Your task to perform on an android device: What's on my calendar tomorrow? Image 0: 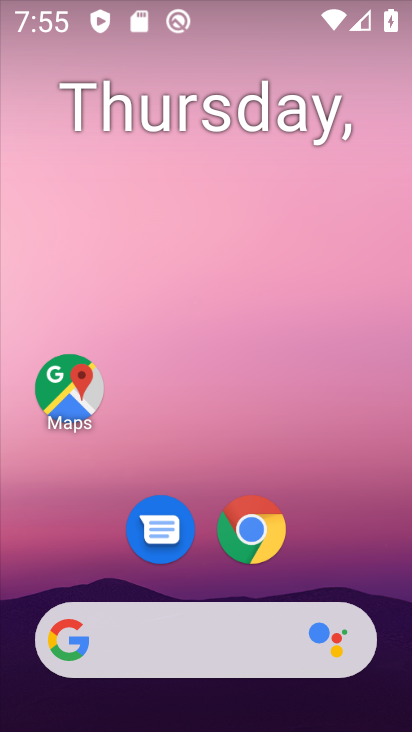
Step 0: drag from (242, 676) to (253, 191)
Your task to perform on an android device: What's on my calendar tomorrow? Image 1: 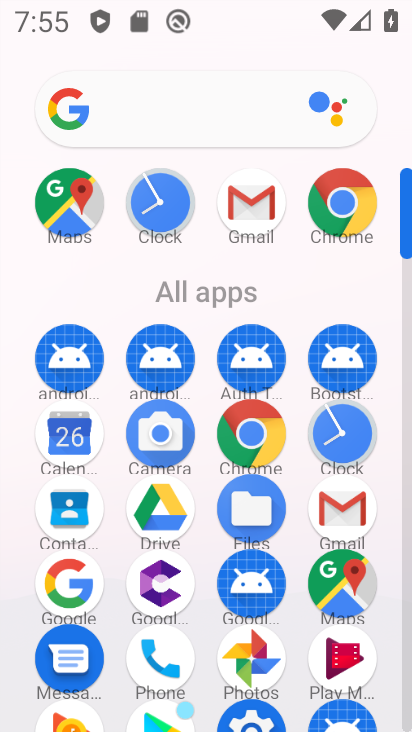
Step 1: click (54, 433)
Your task to perform on an android device: What's on my calendar tomorrow? Image 2: 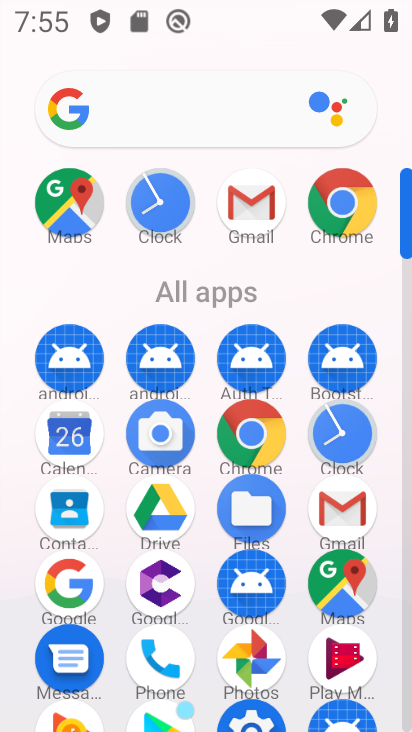
Step 2: click (55, 432)
Your task to perform on an android device: What's on my calendar tomorrow? Image 3: 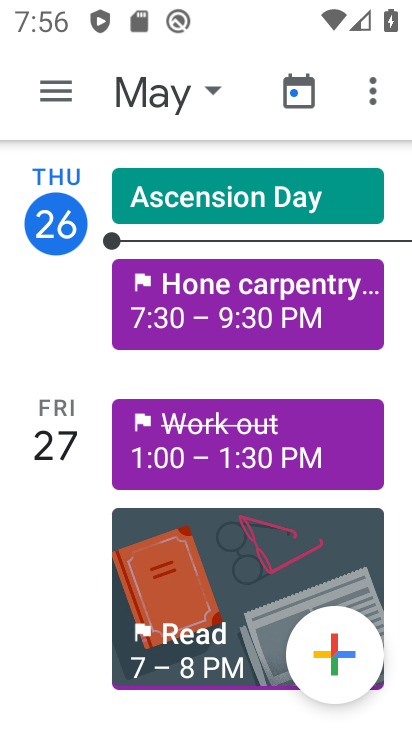
Step 3: drag from (215, 335) to (242, 5)
Your task to perform on an android device: What's on my calendar tomorrow? Image 4: 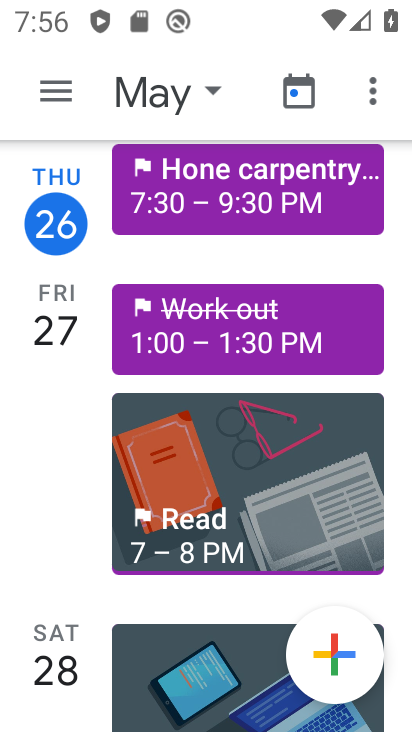
Step 4: click (257, 15)
Your task to perform on an android device: What's on my calendar tomorrow? Image 5: 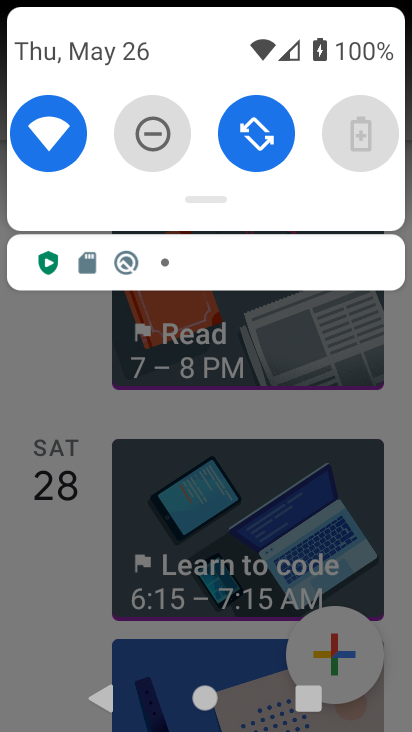
Step 5: click (202, 235)
Your task to perform on an android device: What's on my calendar tomorrow? Image 6: 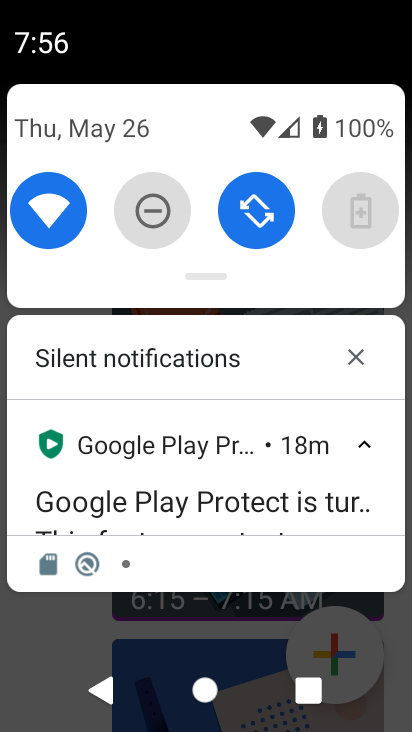
Step 6: click (188, 615)
Your task to perform on an android device: What's on my calendar tomorrow? Image 7: 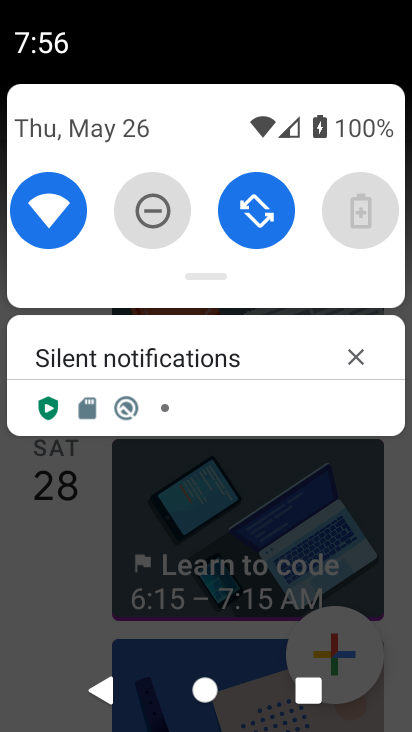
Step 7: click (194, 609)
Your task to perform on an android device: What's on my calendar tomorrow? Image 8: 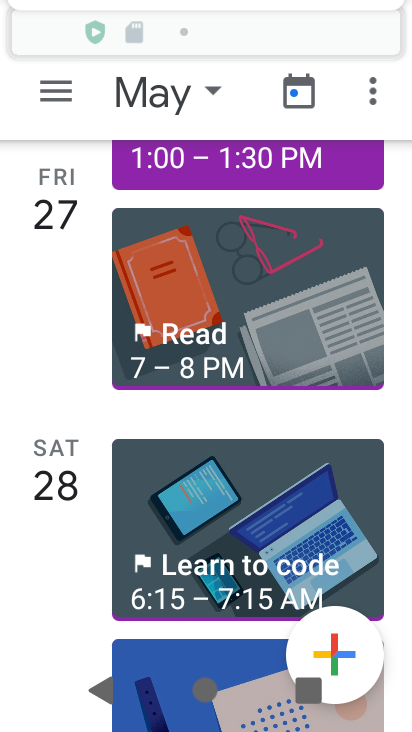
Step 8: click (196, 608)
Your task to perform on an android device: What's on my calendar tomorrow? Image 9: 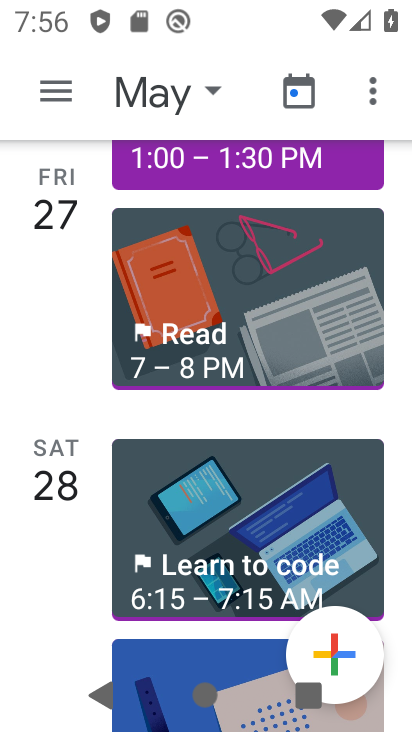
Step 9: click (204, 565)
Your task to perform on an android device: What's on my calendar tomorrow? Image 10: 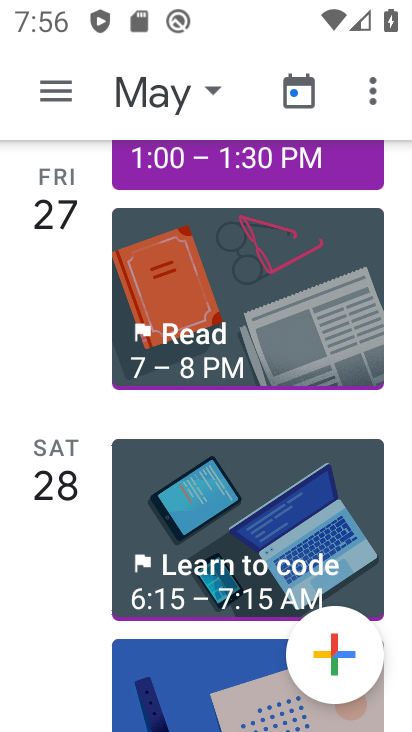
Step 10: click (225, 545)
Your task to perform on an android device: What's on my calendar tomorrow? Image 11: 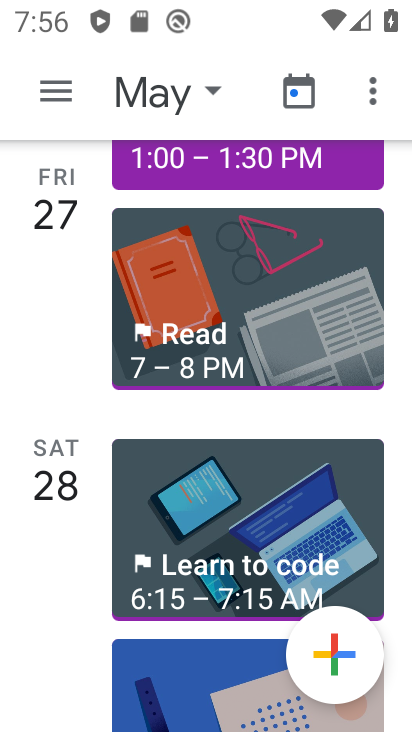
Step 11: click (225, 542)
Your task to perform on an android device: What's on my calendar tomorrow? Image 12: 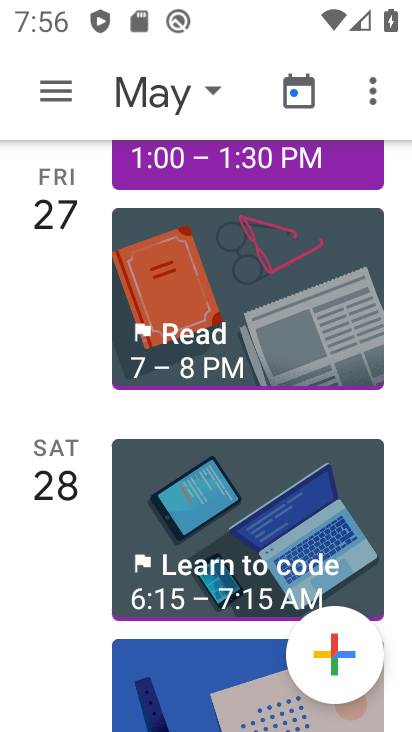
Step 12: click (228, 533)
Your task to perform on an android device: What's on my calendar tomorrow? Image 13: 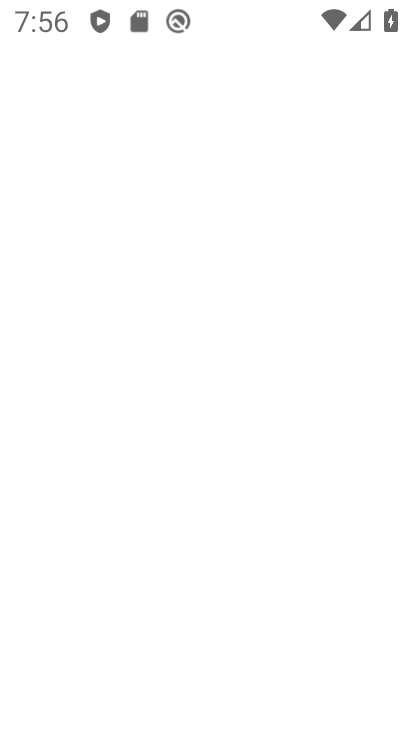
Step 13: click (232, 525)
Your task to perform on an android device: What's on my calendar tomorrow? Image 14: 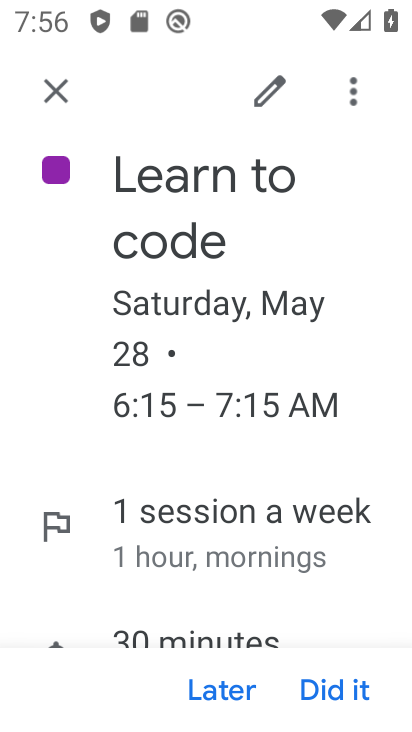
Step 14: task complete